Your task to perform on an android device: turn notification dots on Image 0: 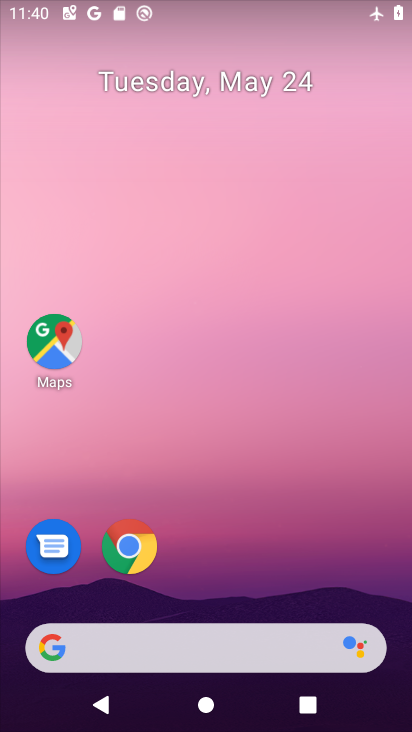
Step 0: drag from (211, 605) to (285, 2)
Your task to perform on an android device: turn notification dots on Image 1: 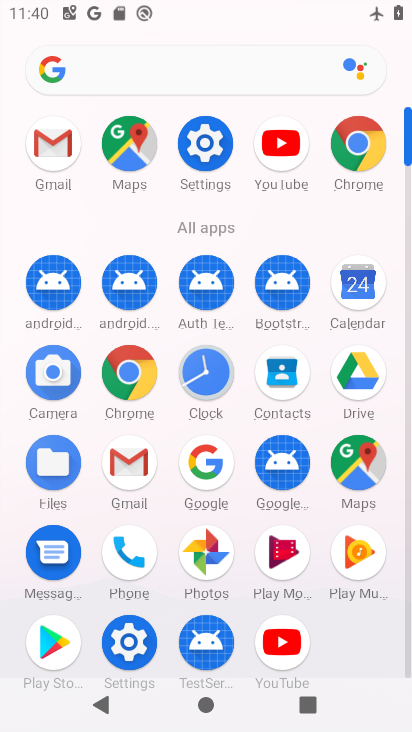
Step 1: click (132, 640)
Your task to perform on an android device: turn notification dots on Image 2: 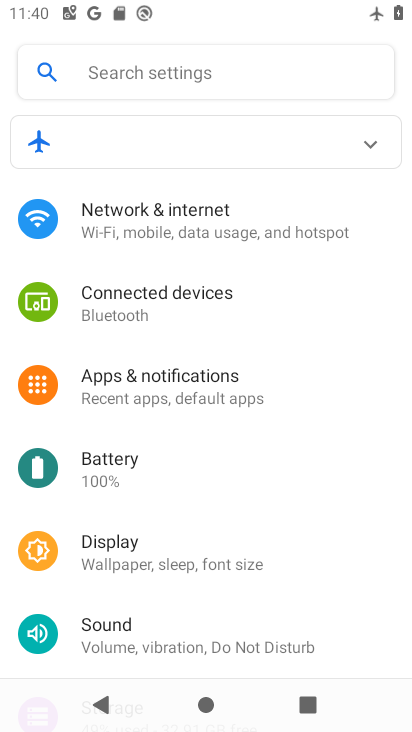
Step 2: click (207, 401)
Your task to perform on an android device: turn notification dots on Image 3: 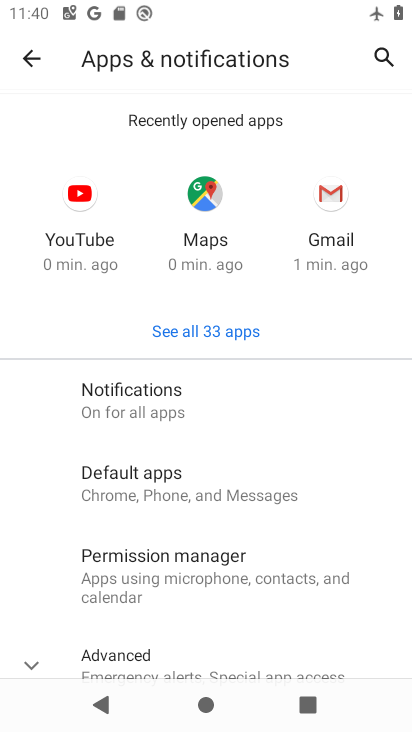
Step 3: click (194, 409)
Your task to perform on an android device: turn notification dots on Image 4: 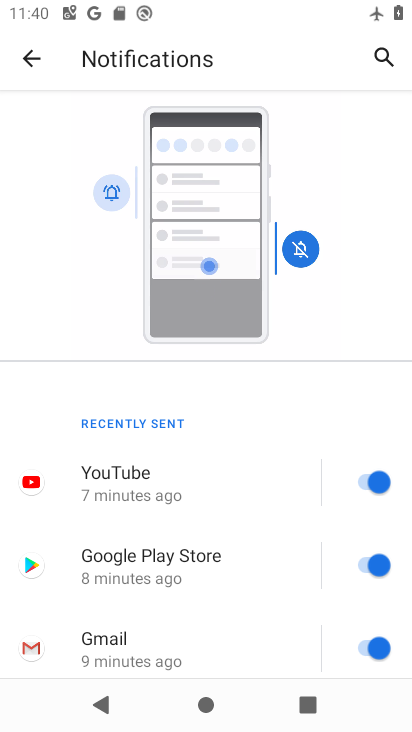
Step 4: drag from (188, 545) to (249, 167)
Your task to perform on an android device: turn notification dots on Image 5: 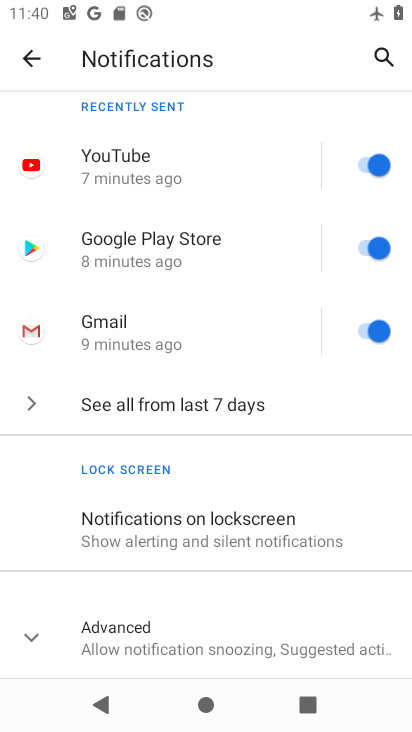
Step 5: drag from (261, 499) to (303, 210)
Your task to perform on an android device: turn notification dots on Image 6: 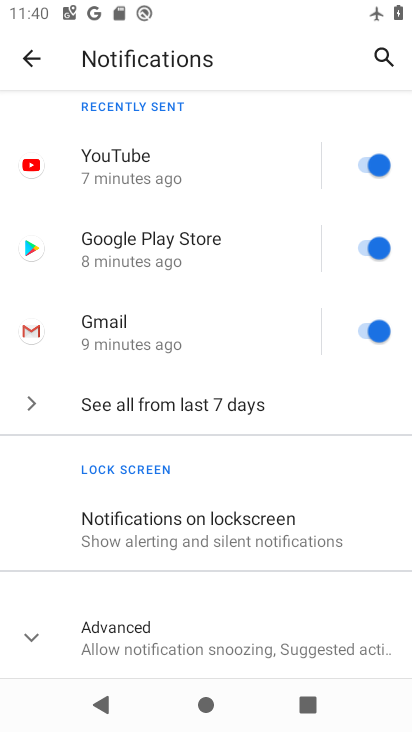
Step 6: click (201, 636)
Your task to perform on an android device: turn notification dots on Image 7: 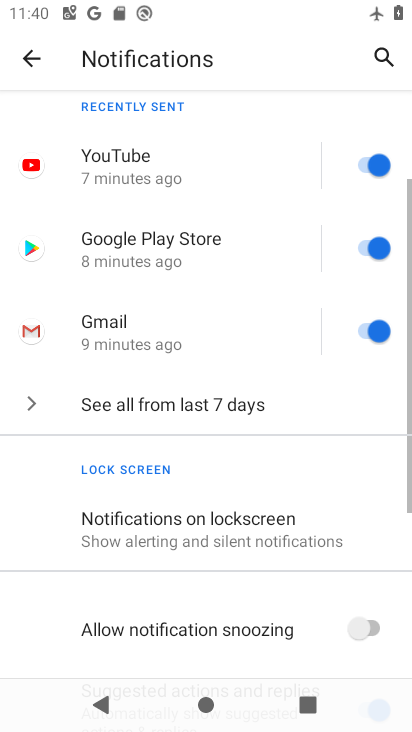
Step 7: task complete